Your task to perform on an android device: Find coffee shops on Maps Image 0: 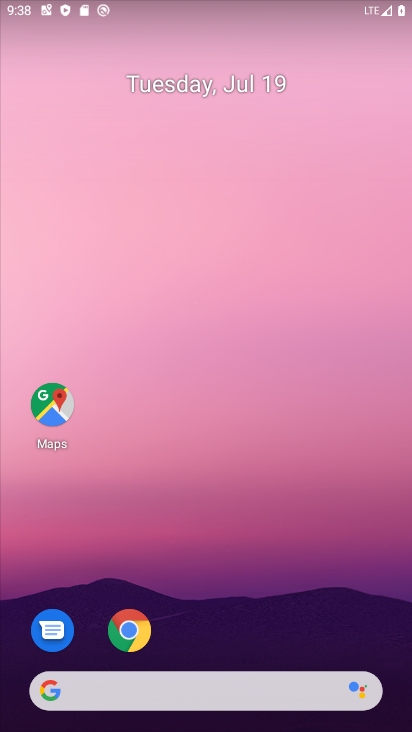
Step 0: click (49, 408)
Your task to perform on an android device: Find coffee shops on Maps Image 1: 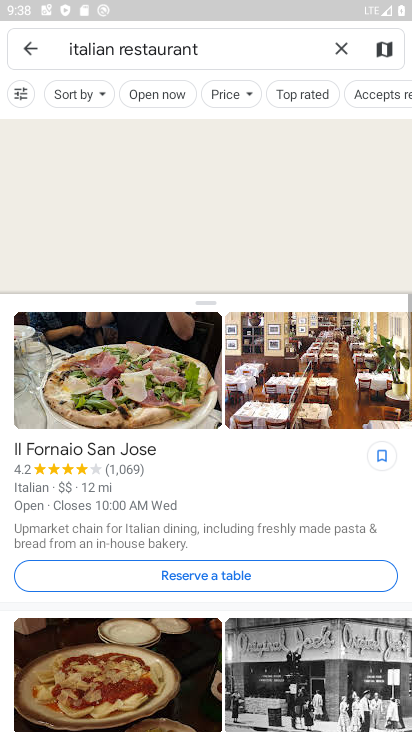
Step 1: click (342, 47)
Your task to perform on an android device: Find coffee shops on Maps Image 2: 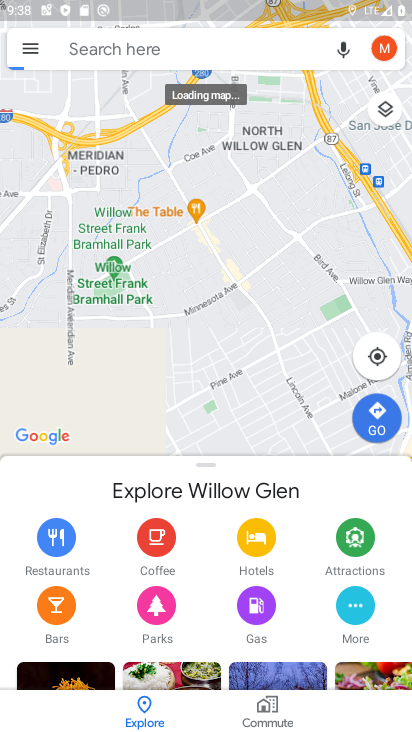
Step 2: click (171, 56)
Your task to perform on an android device: Find coffee shops on Maps Image 3: 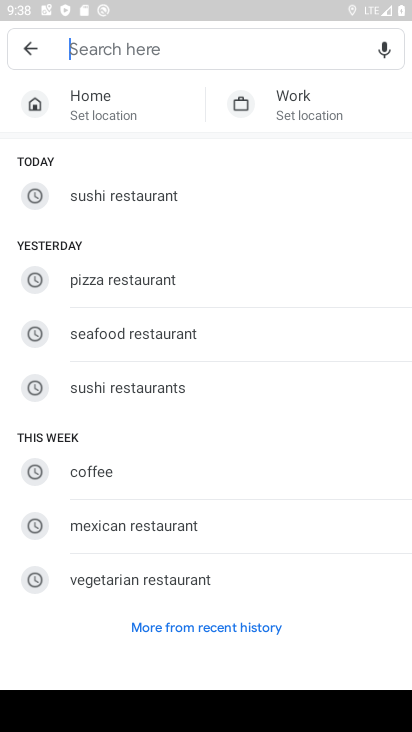
Step 3: click (146, 478)
Your task to perform on an android device: Find coffee shops on Maps Image 4: 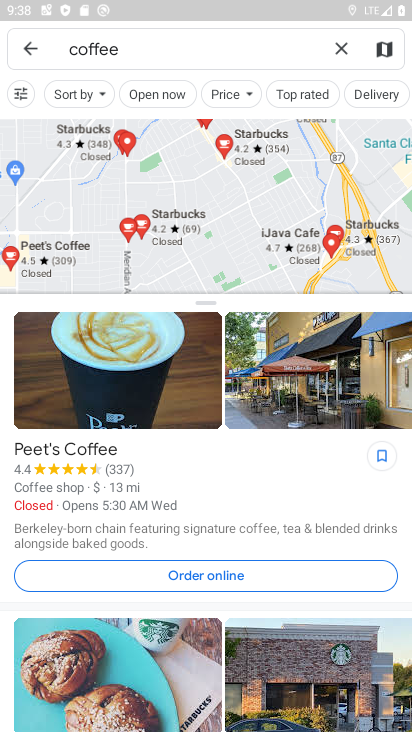
Step 4: task complete